Your task to perform on an android device: turn pop-ups on in chrome Image 0: 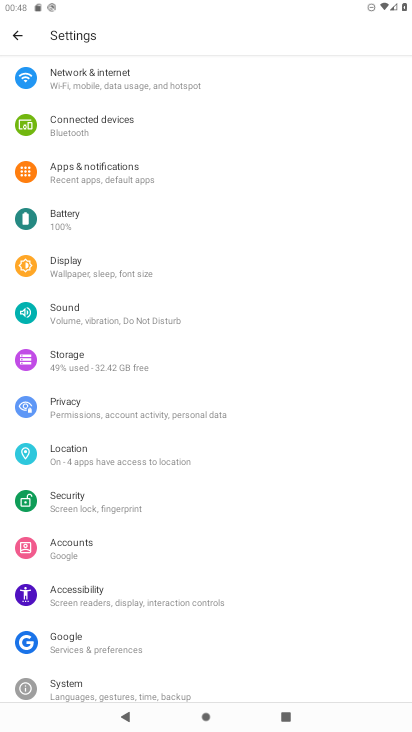
Step 0: press home button
Your task to perform on an android device: turn pop-ups on in chrome Image 1: 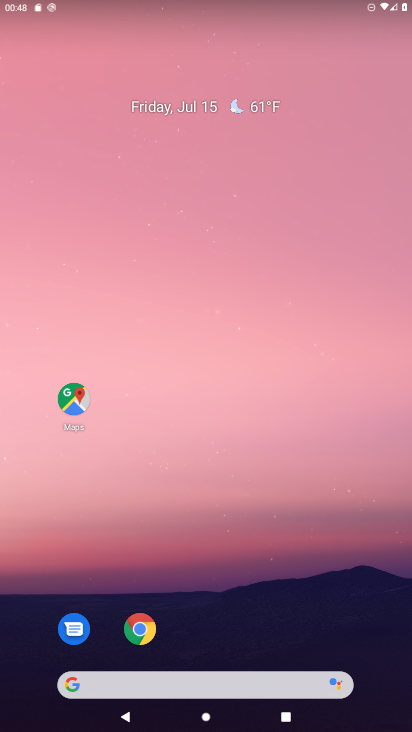
Step 1: click (145, 622)
Your task to perform on an android device: turn pop-ups on in chrome Image 2: 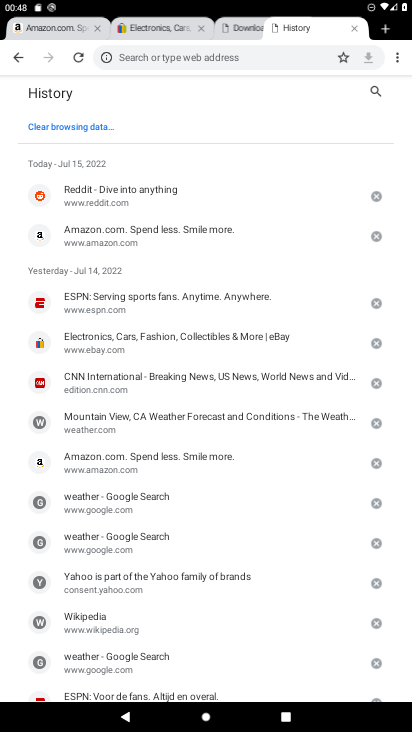
Step 2: click (393, 60)
Your task to perform on an android device: turn pop-ups on in chrome Image 3: 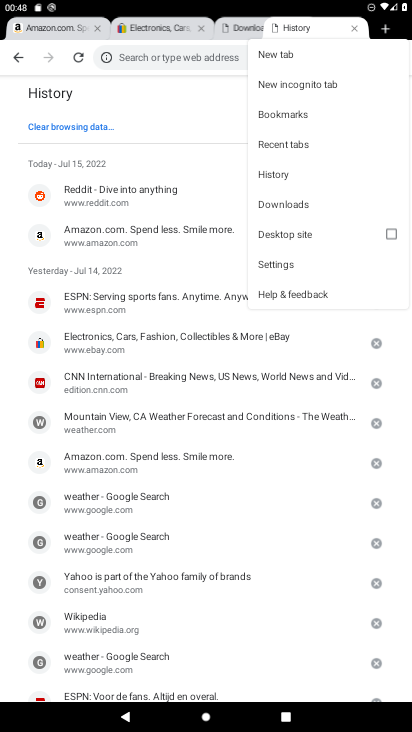
Step 3: click (273, 263)
Your task to perform on an android device: turn pop-ups on in chrome Image 4: 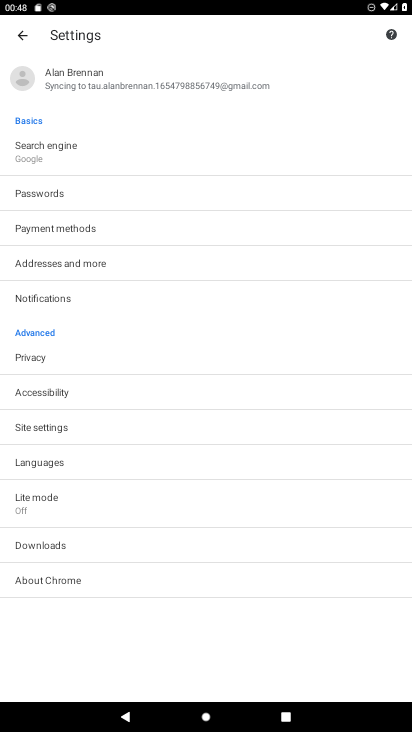
Step 4: click (76, 423)
Your task to perform on an android device: turn pop-ups on in chrome Image 5: 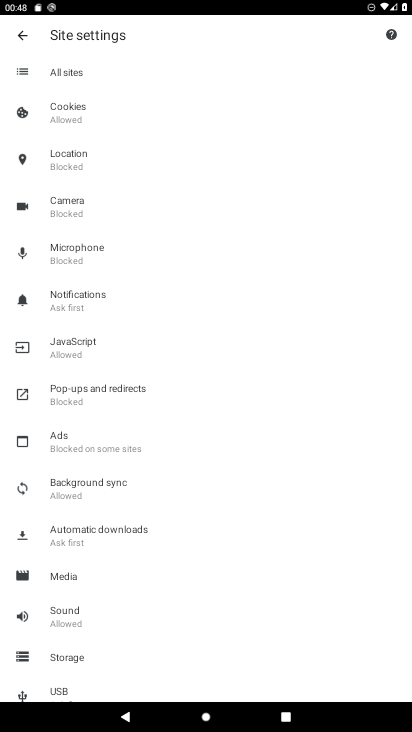
Step 5: click (96, 388)
Your task to perform on an android device: turn pop-ups on in chrome Image 6: 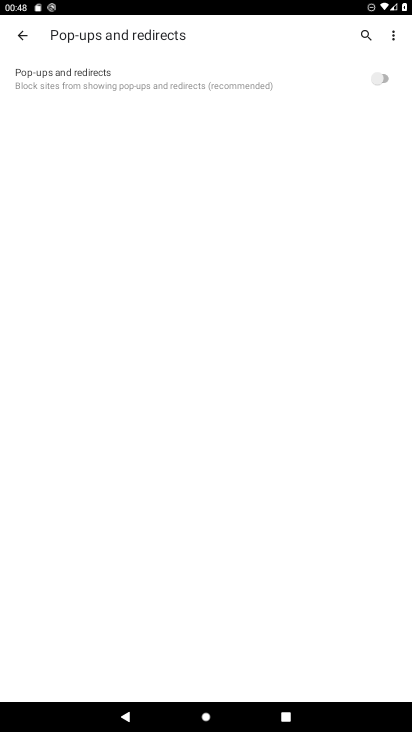
Step 6: click (385, 78)
Your task to perform on an android device: turn pop-ups on in chrome Image 7: 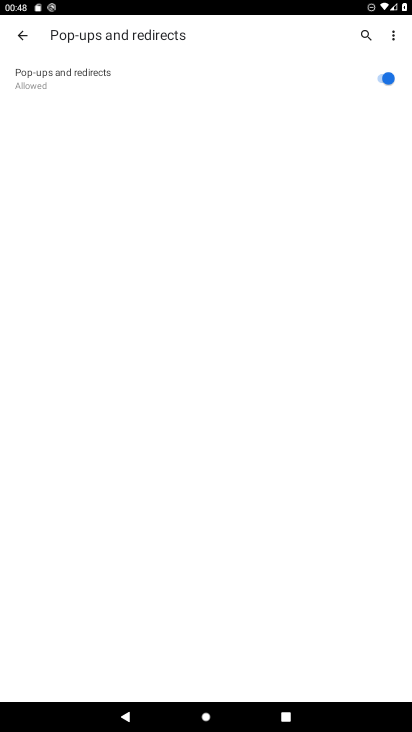
Step 7: task complete